Your task to perform on an android device: turn on wifi Image 0: 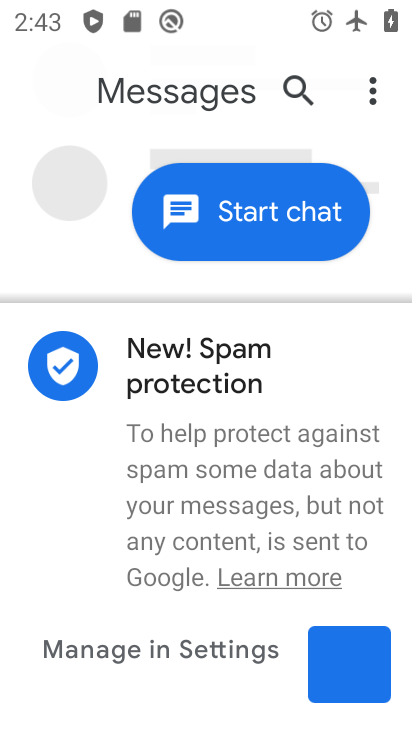
Step 0: press home button
Your task to perform on an android device: turn on wifi Image 1: 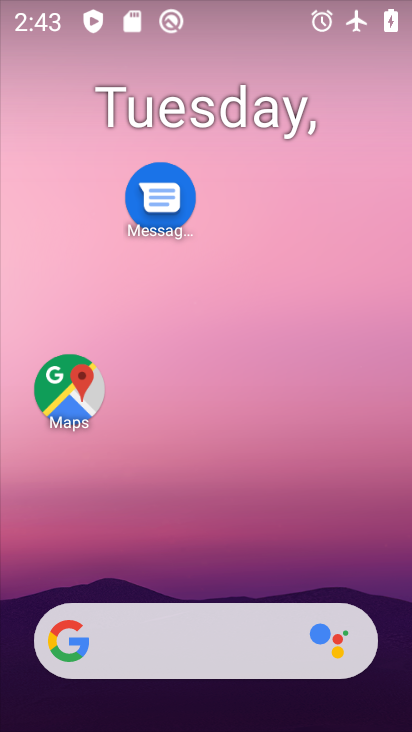
Step 1: drag from (166, 582) to (170, 300)
Your task to perform on an android device: turn on wifi Image 2: 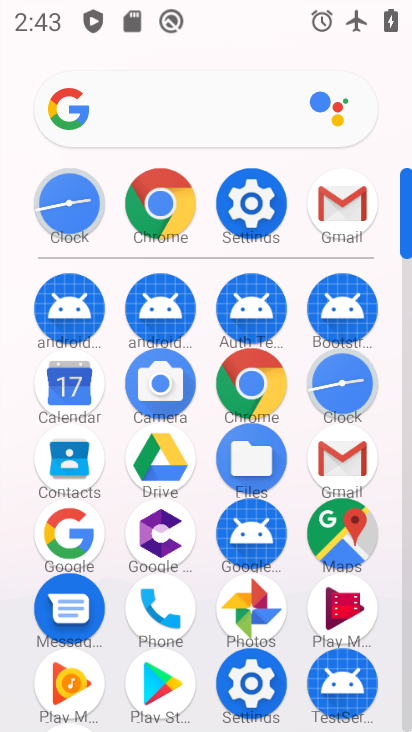
Step 2: click (235, 219)
Your task to perform on an android device: turn on wifi Image 3: 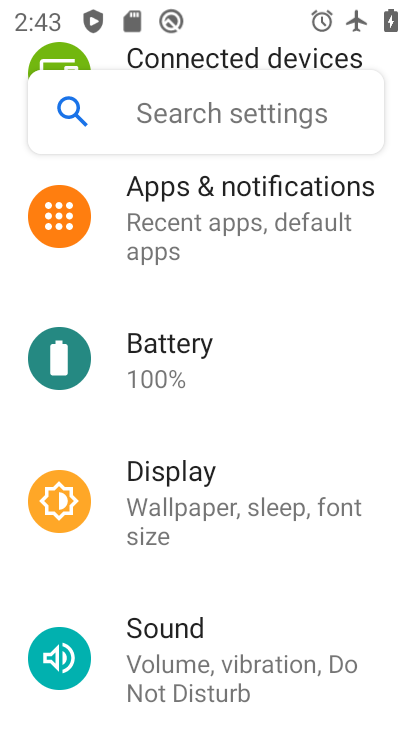
Step 3: drag from (235, 219) to (242, 614)
Your task to perform on an android device: turn on wifi Image 4: 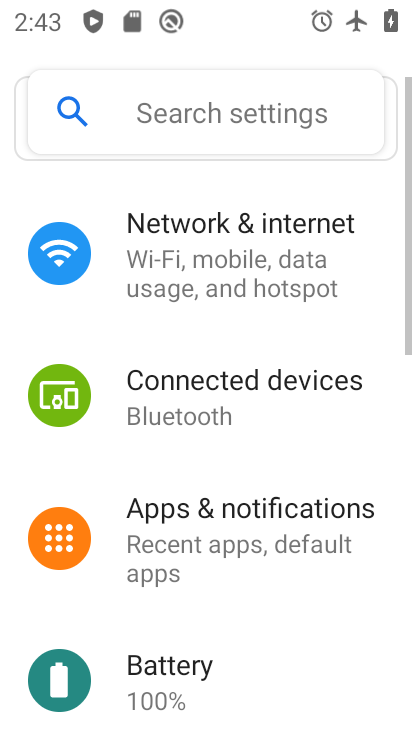
Step 4: drag from (243, 198) to (243, 249)
Your task to perform on an android device: turn on wifi Image 5: 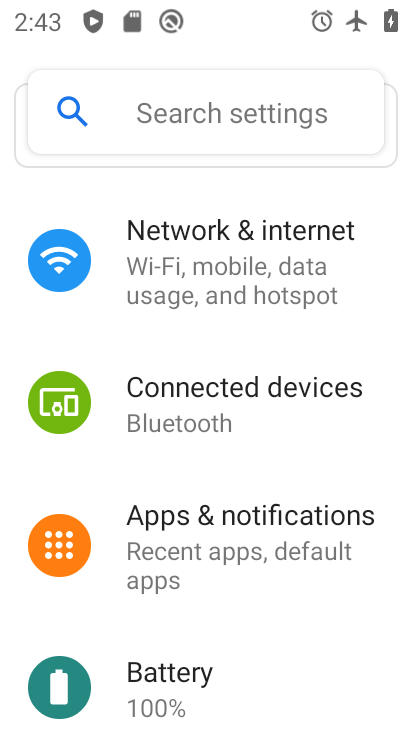
Step 5: click (243, 249)
Your task to perform on an android device: turn on wifi Image 6: 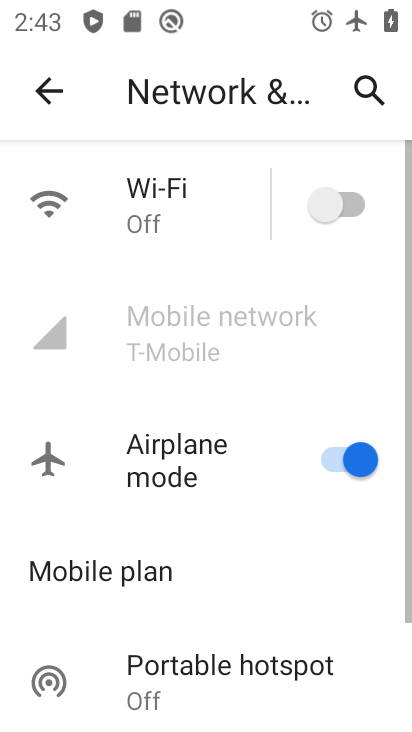
Step 6: click (351, 205)
Your task to perform on an android device: turn on wifi Image 7: 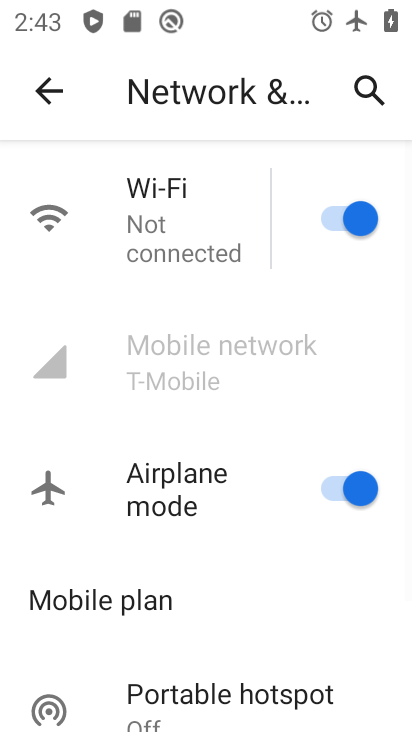
Step 7: task complete